Your task to perform on an android device: Open Reddit.com Image 0: 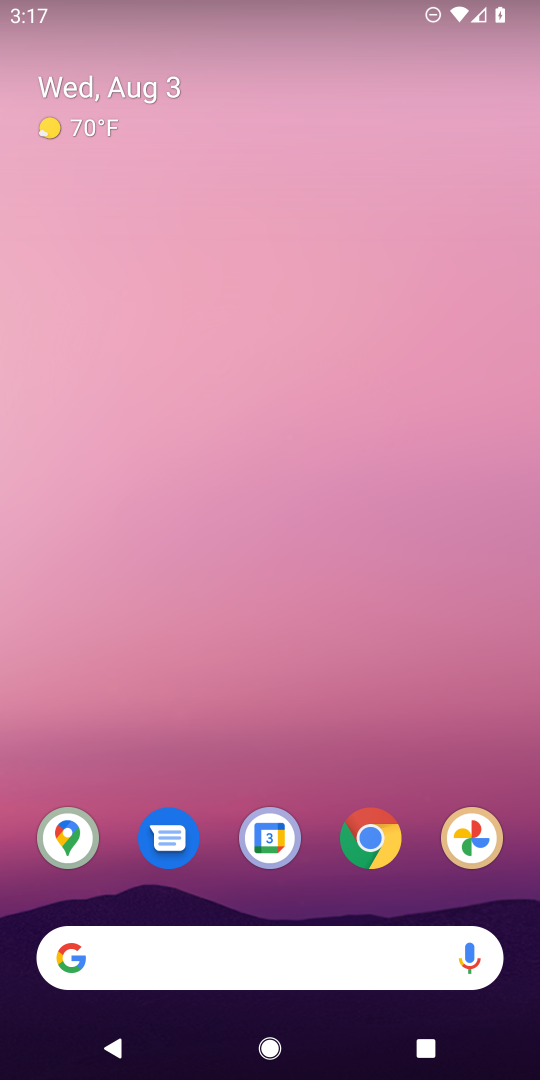
Step 0: click (354, 835)
Your task to perform on an android device: Open Reddit.com Image 1: 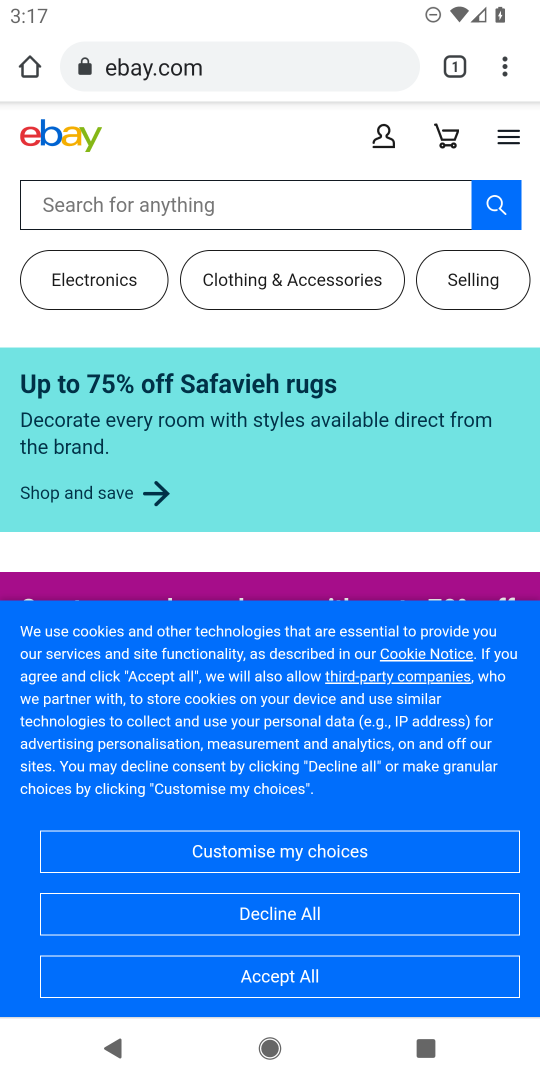
Step 1: click (209, 74)
Your task to perform on an android device: Open Reddit.com Image 2: 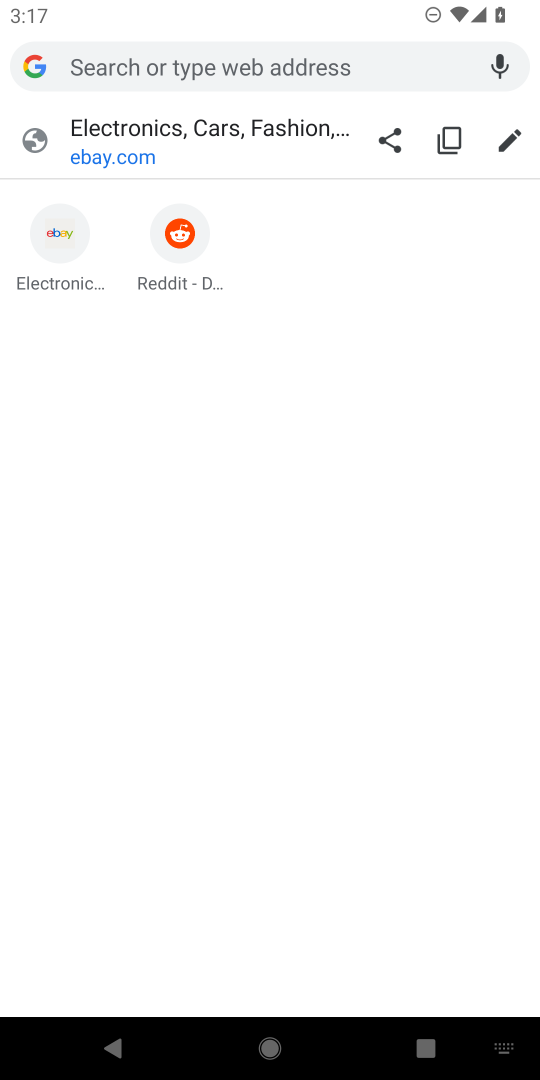
Step 2: type "reddit.com"
Your task to perform on an android device: Open Reddit.com Image 3: 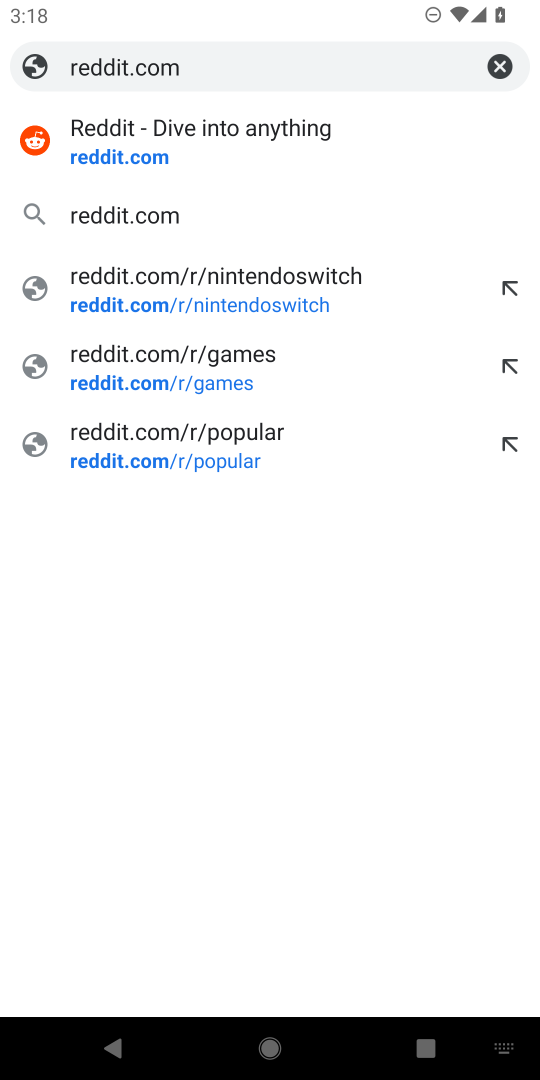
Step 3: click (196, 157)
Your task to perform on an android device: Open Reddit.com Image 4: 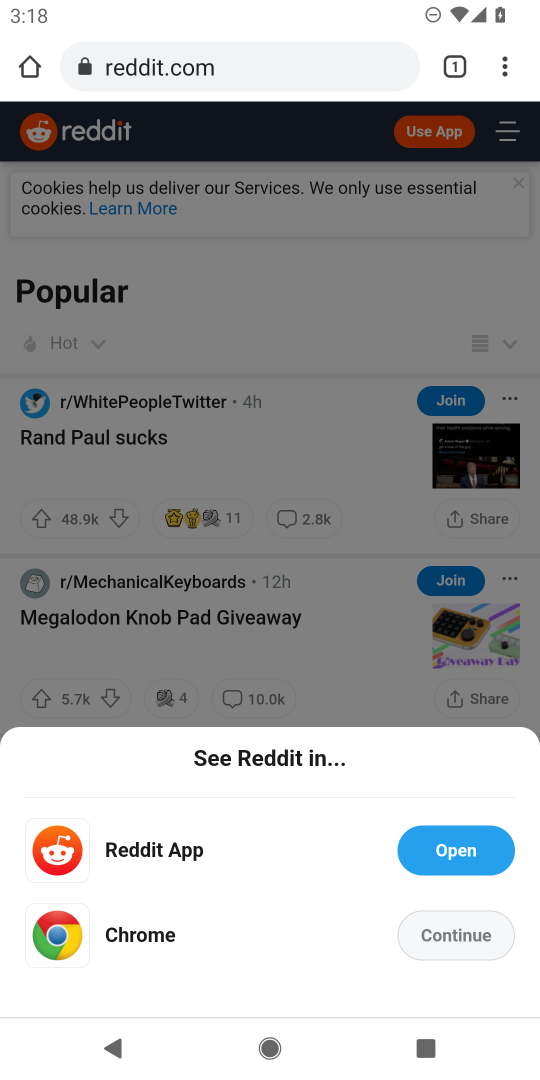
Step 4: task complete